Your task to perform on an android device: Open Amazon Image 0: 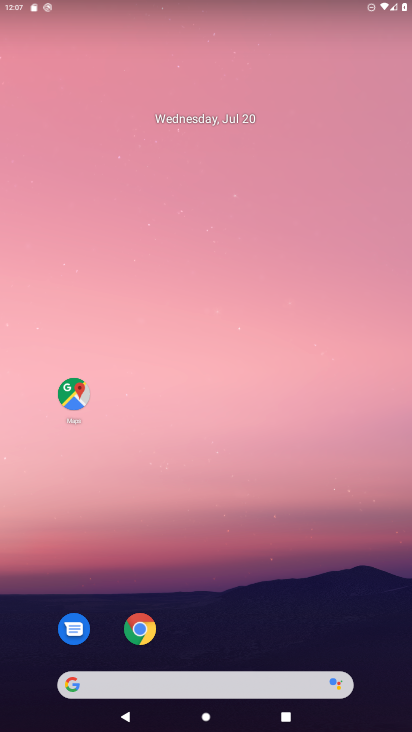
Step 0: click (138, 631)
Your task to perform on an android device: Open Amazon Image 1: 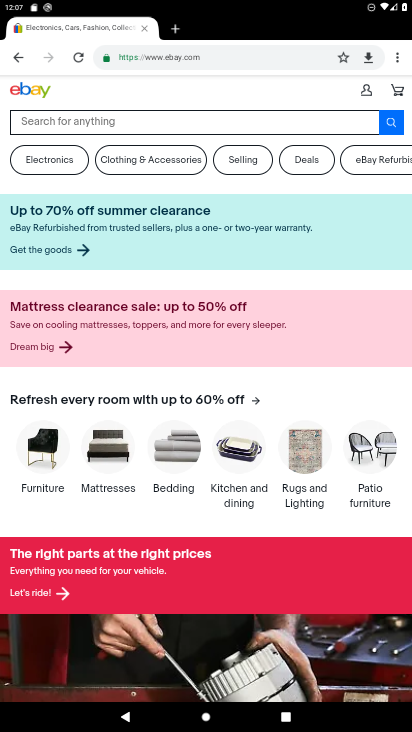
Step 1: click (12, 56)
Your task to perform on an android device: Open Amazon Image 2: 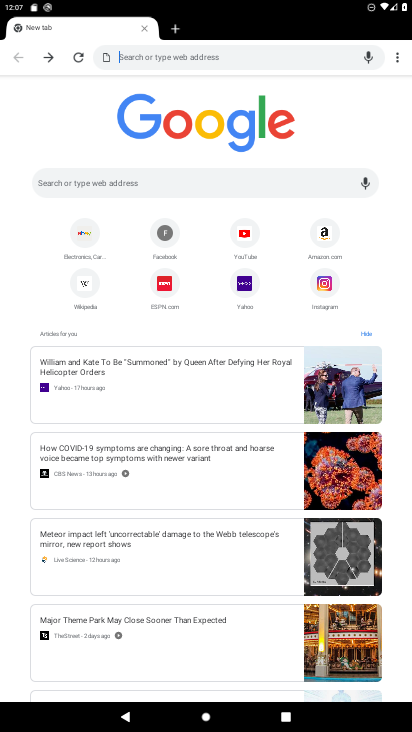
Step 2: click (320, 237)
Your task to perform on an android device: Open Amazon Image 3: 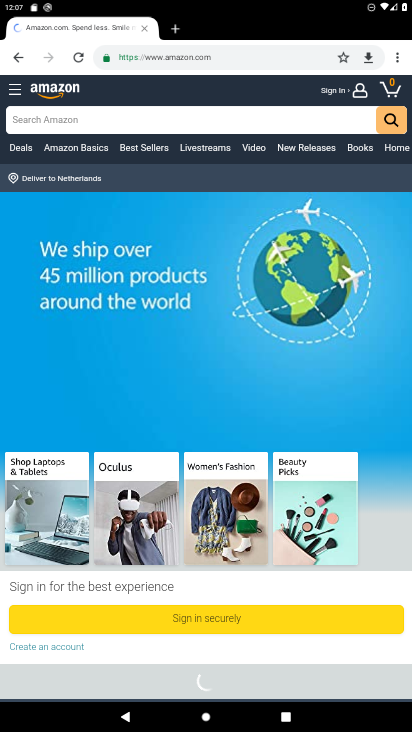
Step 3: task complete